Your task to perform on an android device: toggle improve location accuracy Image 0: 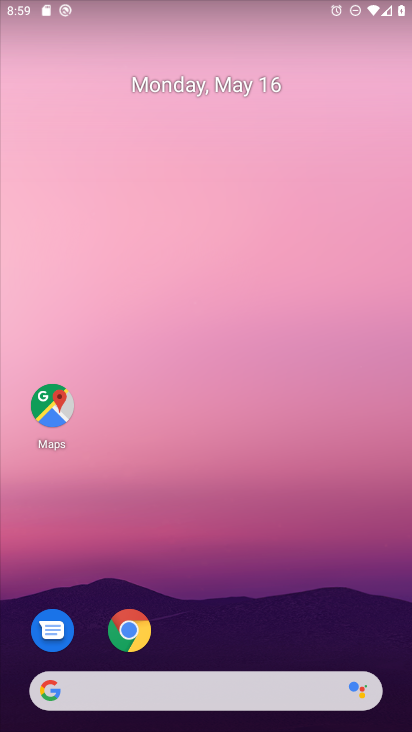
Step 0: drag from (291, 566) to (293, 72)
Your task to perform on an android device: toggle improve location accuracy Image 1: 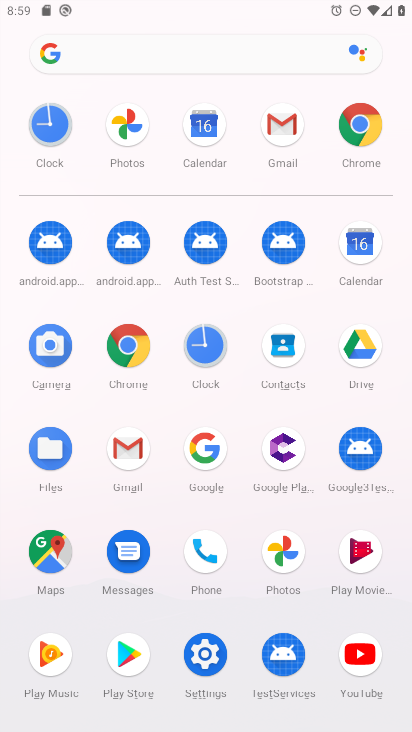
Step 1: click (202, 649)
Your task to perform on an android device: toggle improve location accuracy Image 2: 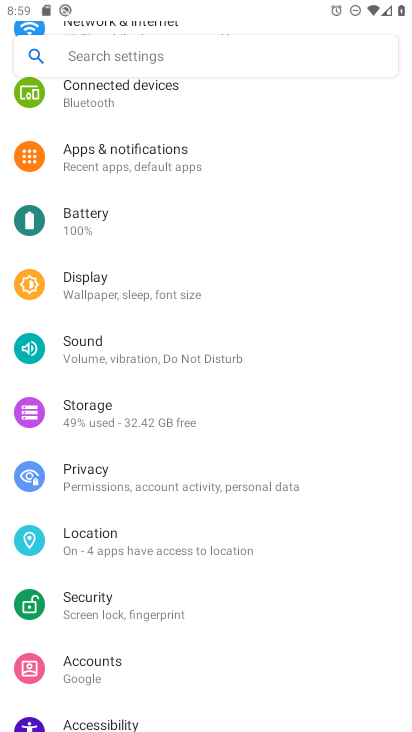
Step 2: click (133, 550)
Your task to perform on an android device: toggle improve location accuracy Image 3: 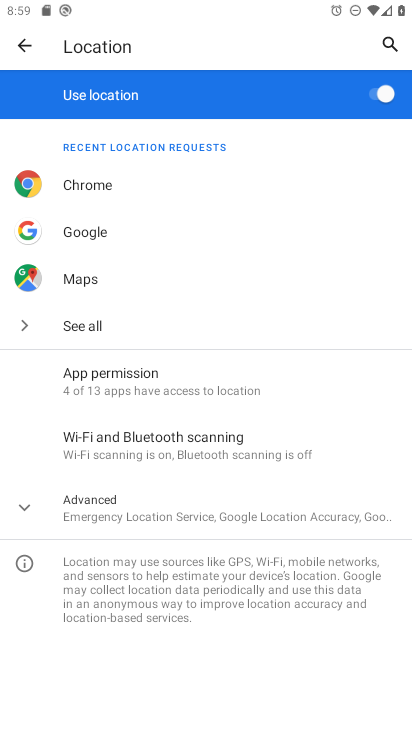
Step 3: click (133, 507)
Your task to perform on an android device: toggle improve location accuracy Image 4: 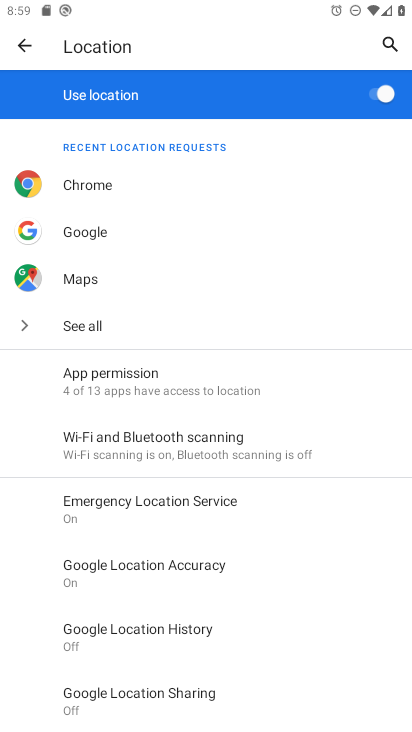
Step 4: click (212, 572)
Your task to perform on an android device: toggle improve location accuracy Image 5: 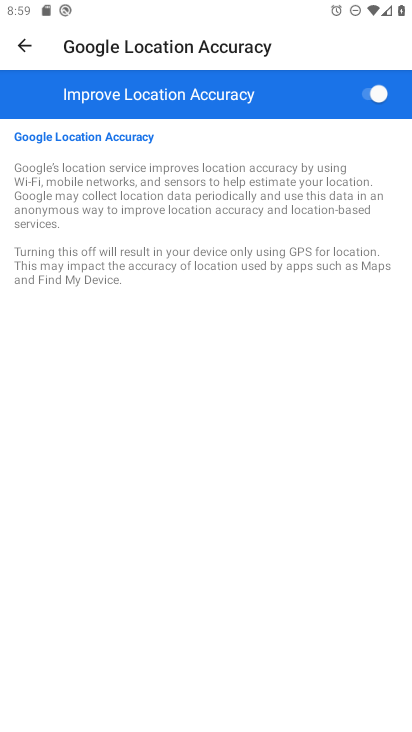
Step 5: task complete